Your task to perform on an android device: add a contact in the contacts app Image 0: 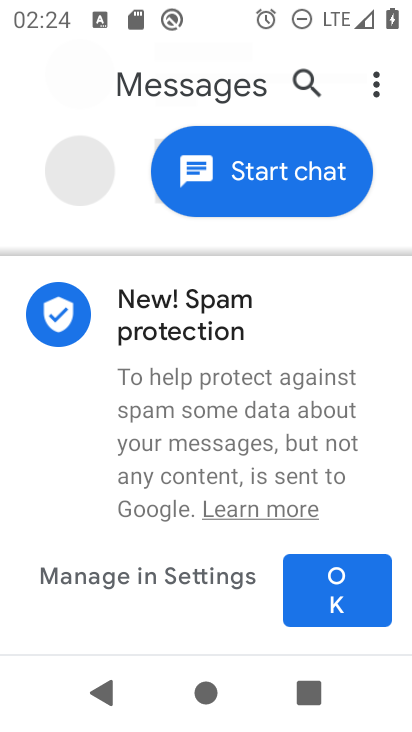
Step 0: press home button
Your task to perform on an android device: add a contact in the contacts app Image 1: 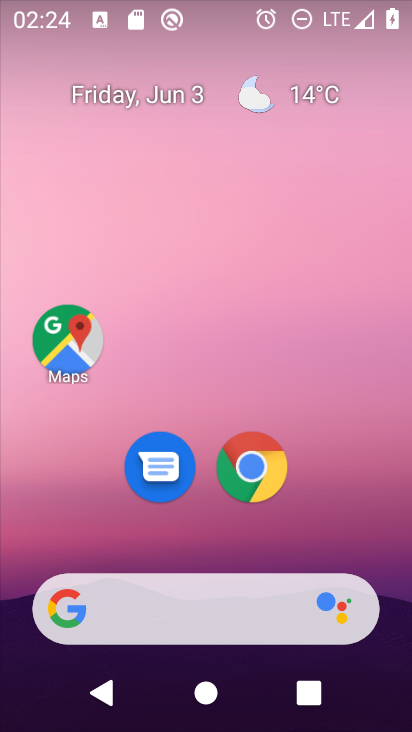
Step 1: drag from (394, 620) to (370, 25)
Your task to perform on an android device: add a contact in the contacts app Image 2: 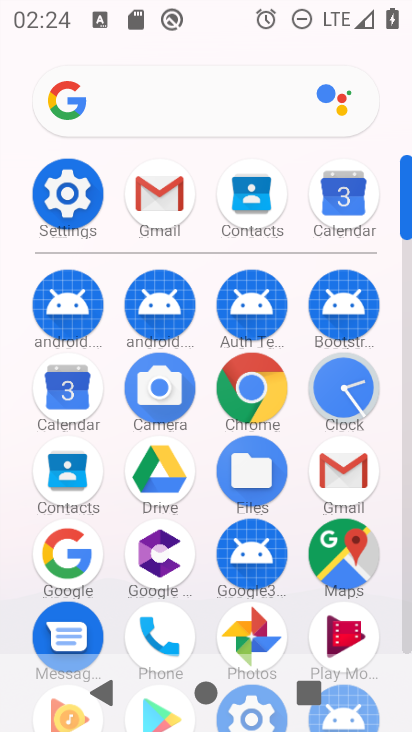
Step 2: click (407, 607)
Your task to perform on an android device: add a contact in the contacts app Image 3: 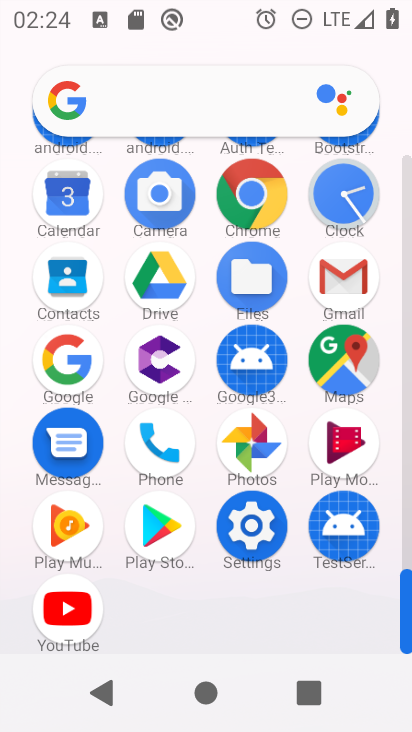
Step 3: click (67, 279)
Your task to perform on an android device: add a contact in the contacts app Image 4: 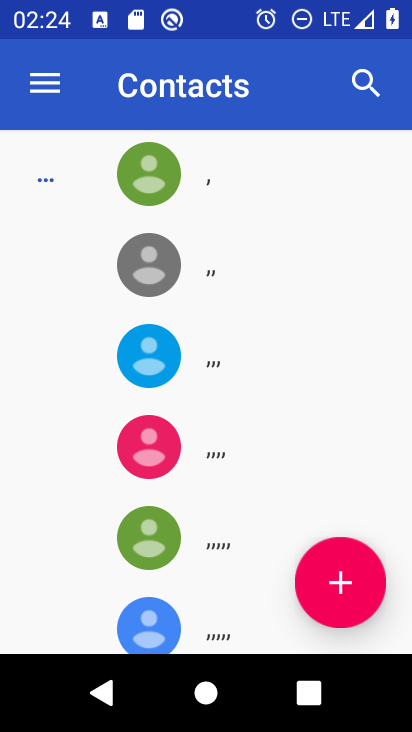
Step 4: click (338, 585)
Your task to perform on an android device: add a contact in the contacts app Image 5: 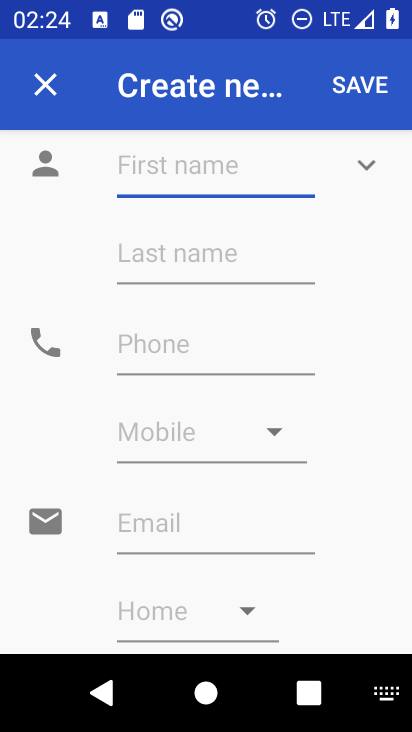
Step 5: type "iuytrewsdfvbnmkjhgf"
Your task to perform on an android device: add a contact in the contacts app Image 6: 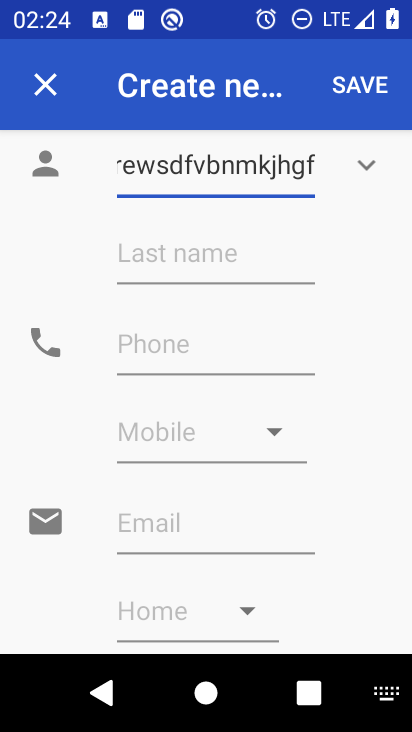
Step 6: click (167, 354)
Your task to perform on an android device: add a contact in the contacts app Image 7: 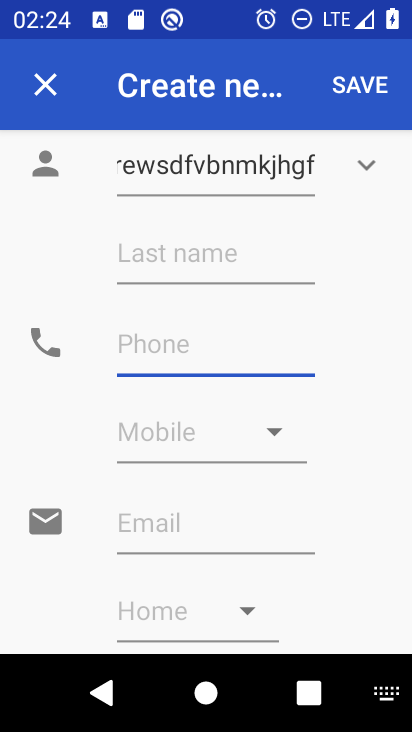
Step 7: type "09876555413"
Your task to perform on an android device: add a contact in the contacts app Image 8: 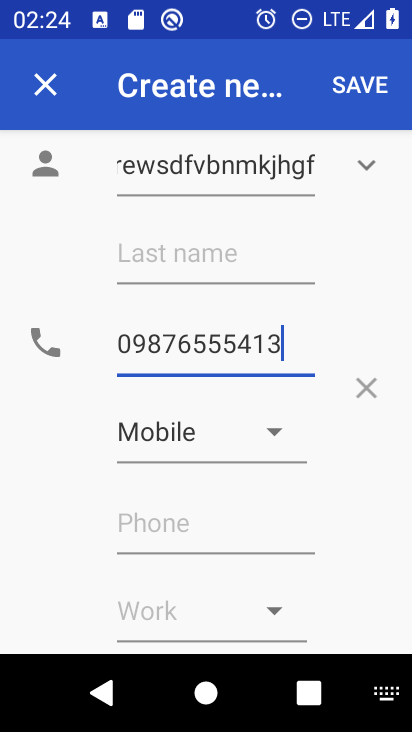
Step 8: click (277, 435)
Your task to perform on an android device: add a contact in the contacts app Image 9: 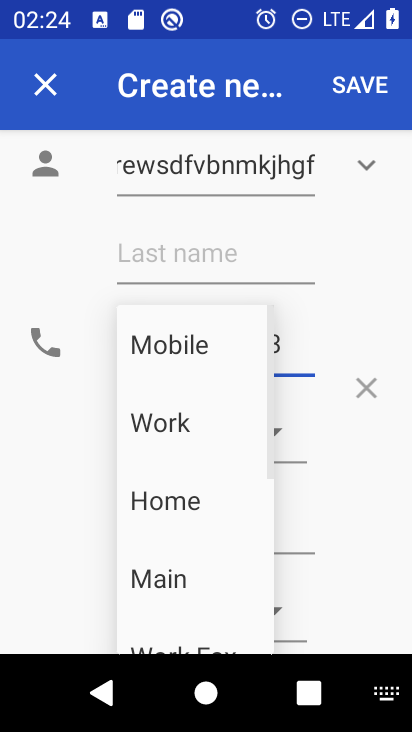
Step 9: click (147, 419)
Your task to perform on an android device: add a contact in the contacts app Image 10: 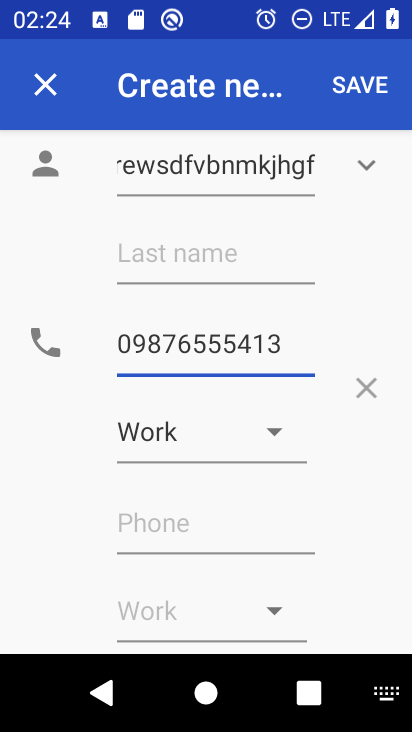
Step 10: click (370, 89)
Your task to perform on an android device: add a contact in the contacts app Image 11: 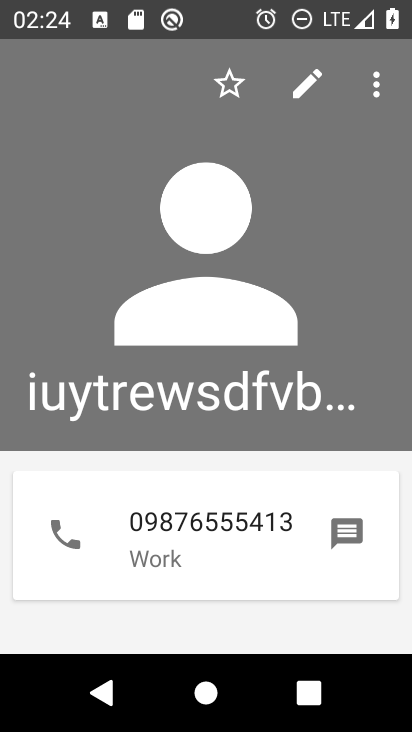
Step 11: task complete